Your task to perform on an android device: turn on wifi Image 0: 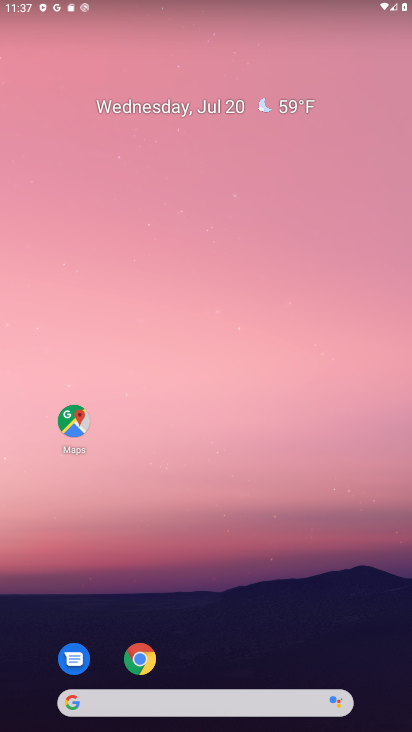
Step 0: press home button
Your task to perform on an android device: turn on wifi Image 1: 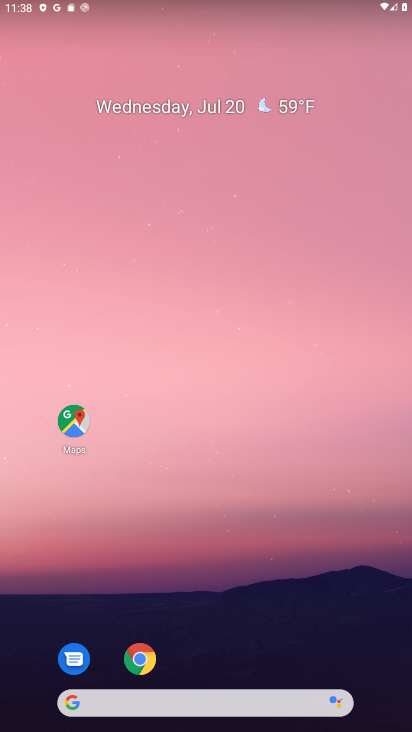
Step 1: task complete